Your task to perform on an android device: visit the assistant section in the google photos Image 0: 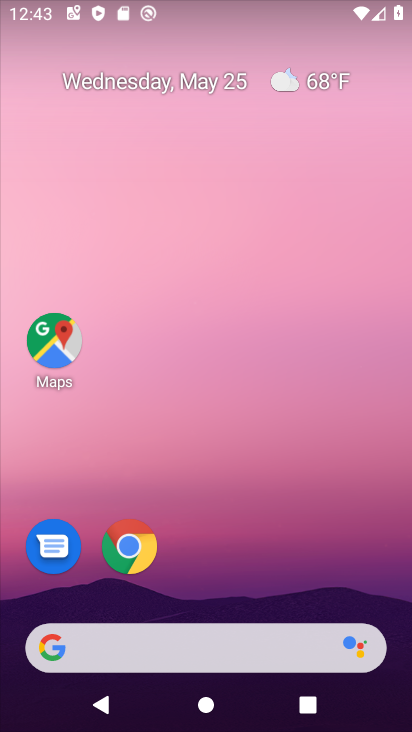
Step 0: drag from (254, 582) to (226, 210)
Your task to perform on an android device: visit the assistant section in the google photos Image 1: 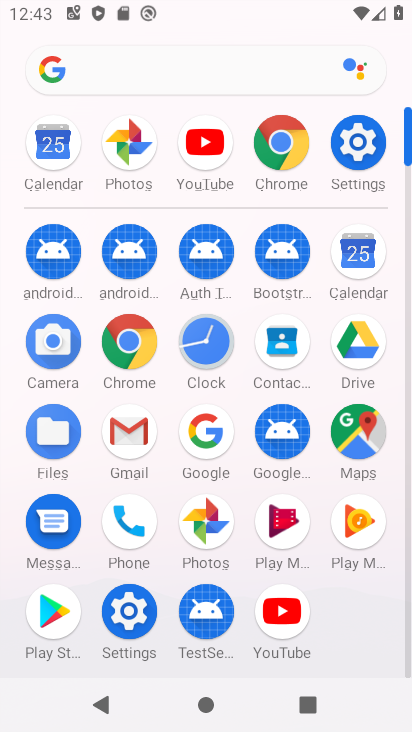
Step 1: click (126, 162)
Your task to perform on an android device: visit the assistant section in the google photos Image 2: 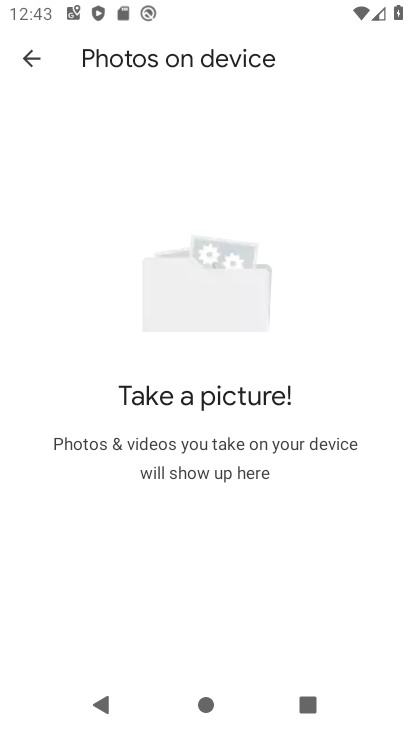
Step 2: click (23, 65)
Your task to perform on an android device: visit the assistant section in the google photos Image 3: 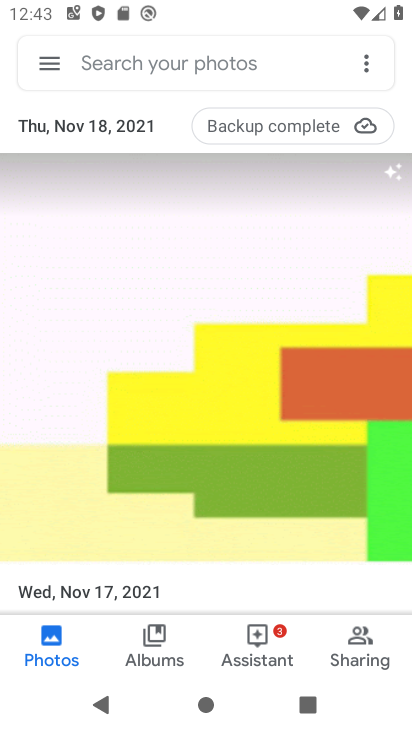
Step 3: click (275, 647)
Your task to perform on an android device: visit the assistant section in the google photos Image 4: 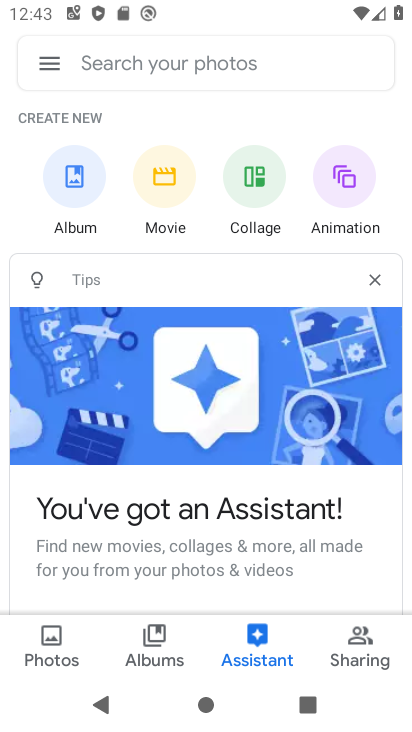
Step 4: task complete